Your task to perform on an android device: Open maps Image 0: 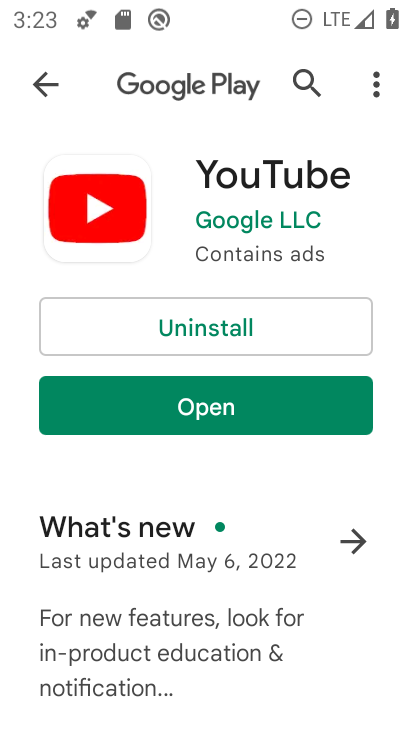
Step 0: press home button
Your task to perform on an android device: Open maps Image 1: 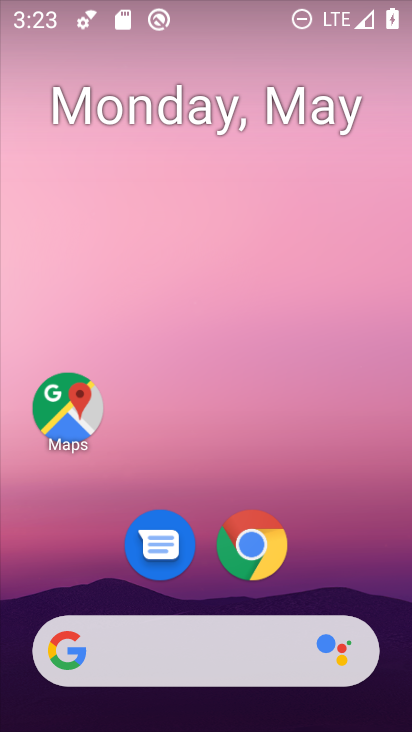
Step 1: click (64, 403)
Your task to perform on an android device: Open maps Image 2: 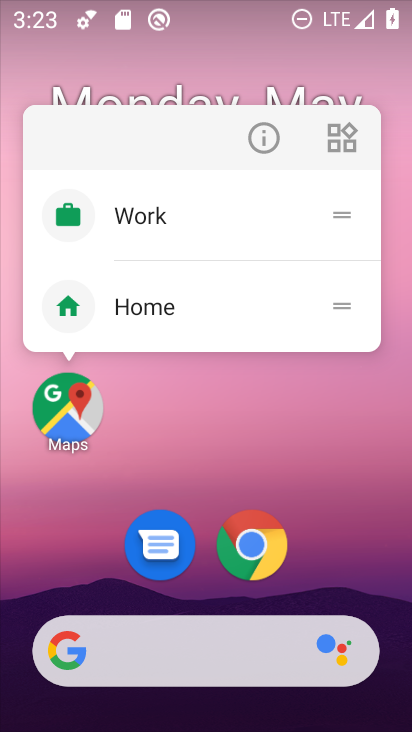
Step 2: click (57, 415)
Your task to perform on an android device: Open maps Image 3: 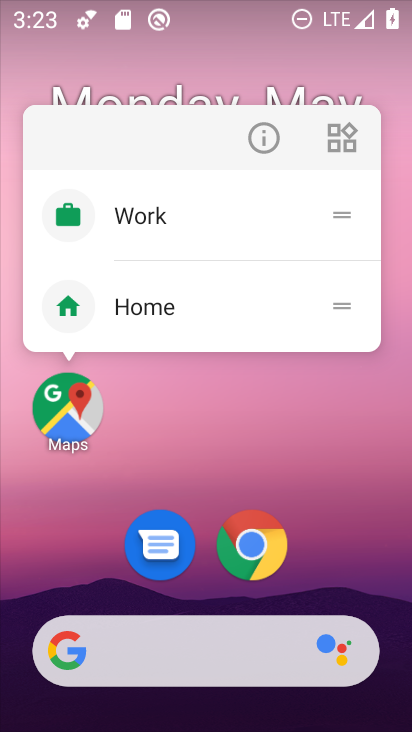
Step 3: click (72, 425)
Your task to perform on an android device: Open maps Image 4: 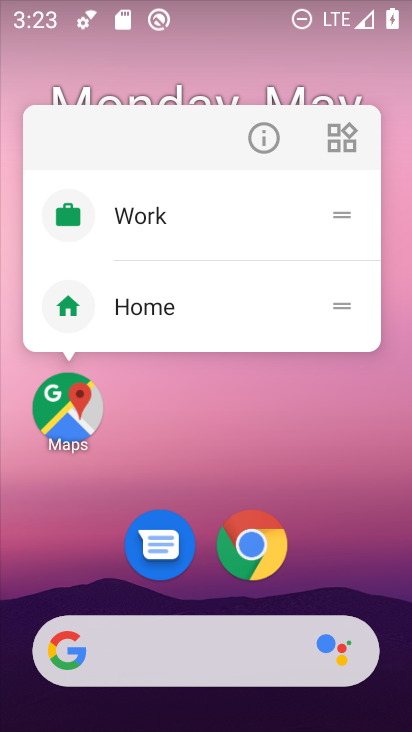
Step 4: click (72, 425)
Your task to perform on an android device: Open maps Image 5: 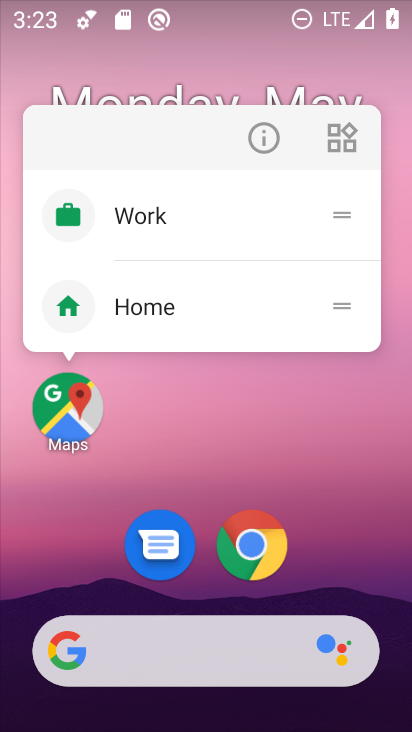
Step 5: click (65, 426)
Your task to perform on an android device: Open maps Image 6: 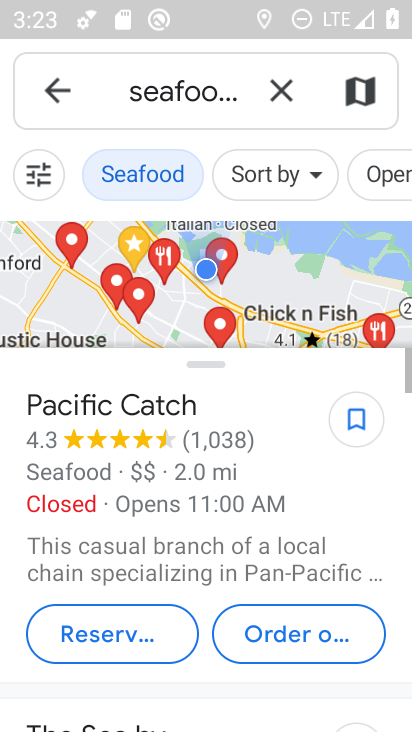
Step 6: click (290, 93)
Your task to perform on an android device: Open maps Image 7: 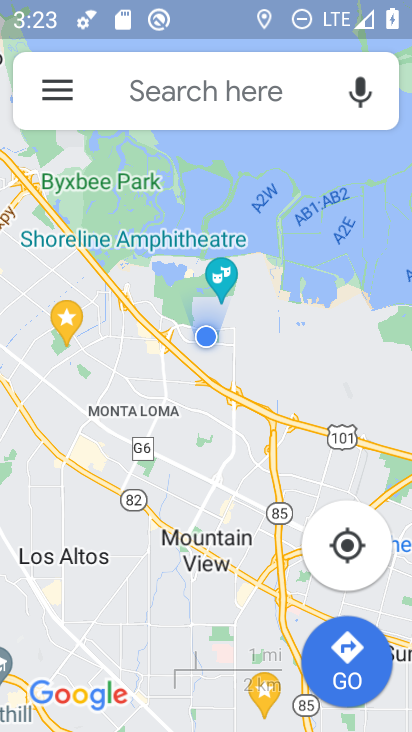
Step 7: task complete